Your task to perform on an android device: find which apps use the phone's location Image 0: 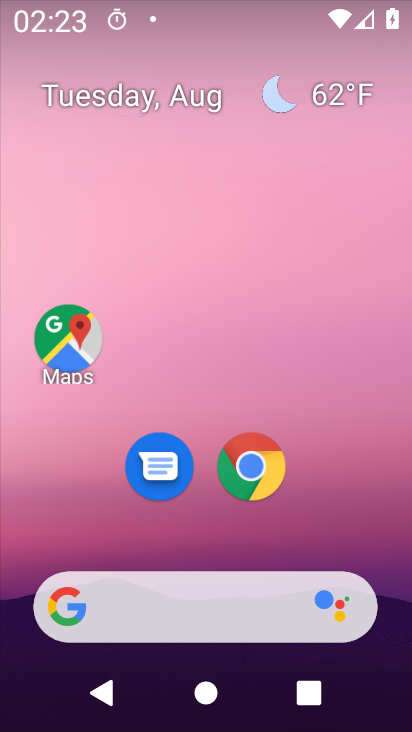
Step 0: press home button
Your task to perform on an android device: find which apps use the phone's location Image 1: 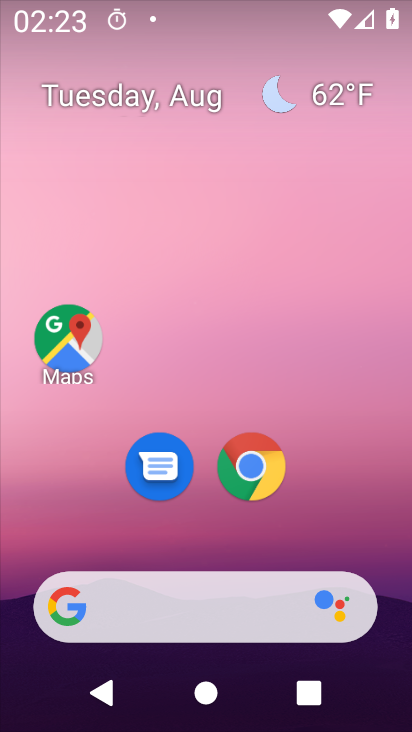
Step 1: drag from (368, 554) to (381, 133)
Your task to perform on an android device: find which apps use the phone's location Image 2: 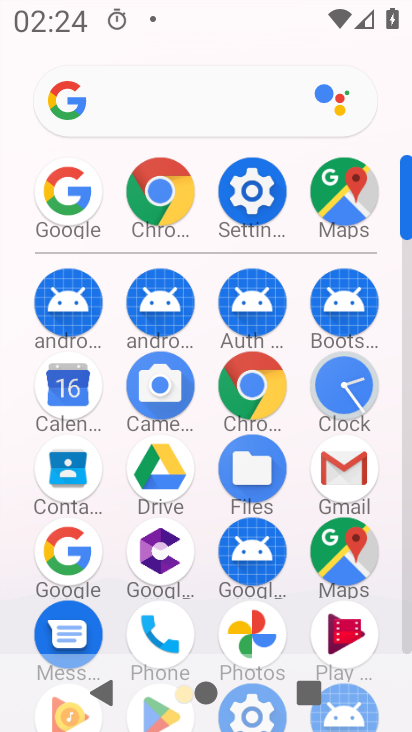
Step 2: click (263, 201)
Your task to perform on an android device: find which apps use the phone's location Image 3: 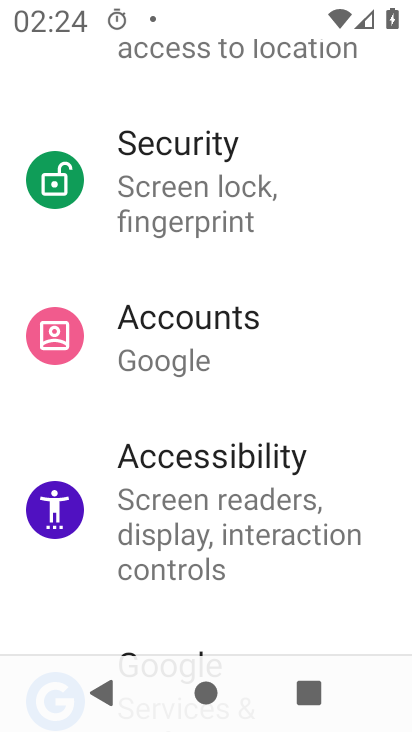
Step 3: drag from (322, 324) to (328, 444)
Your task to perform on an android device: find which apps use the phone's location Image 4: 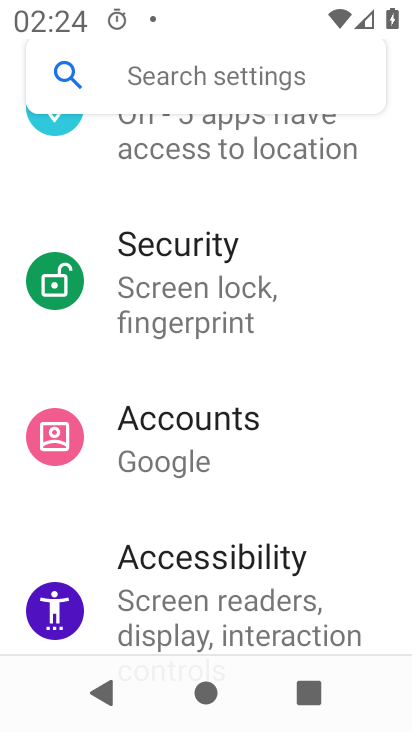
Step 4: drag from (359, 272) to (357, 401)
Your task to perform on an android device: find which apps use the phone's location Image 5: 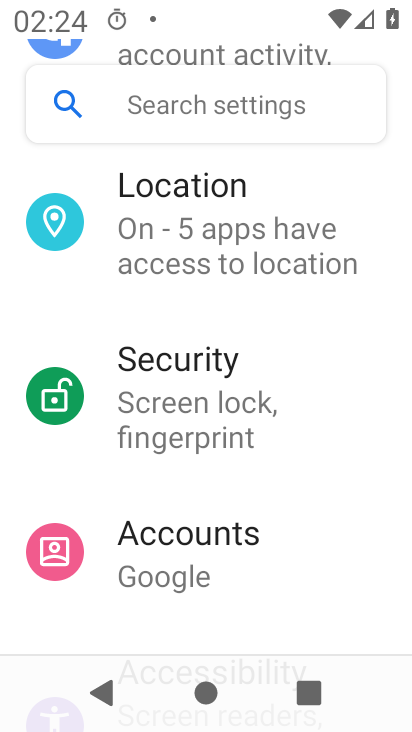
Step 5: drag from (381, 273) to (366, 392)
Your task to perform on an android device: find which apps use the phone's location Image 6: 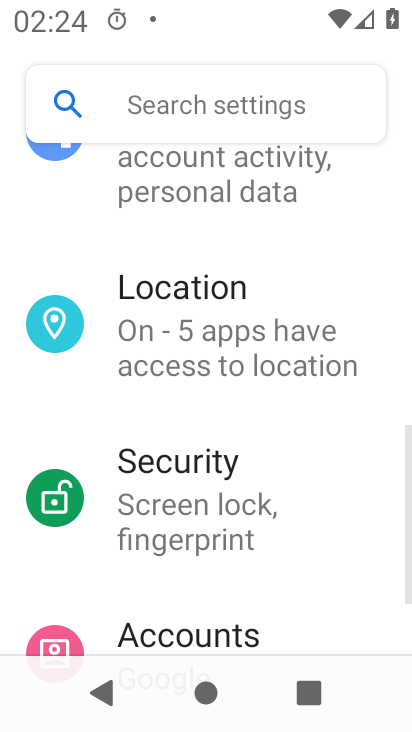
Step 6: drag from (381, 241) to (383, 364)
Your task to perform on an android device: find which apps use the phone's location Image 7: 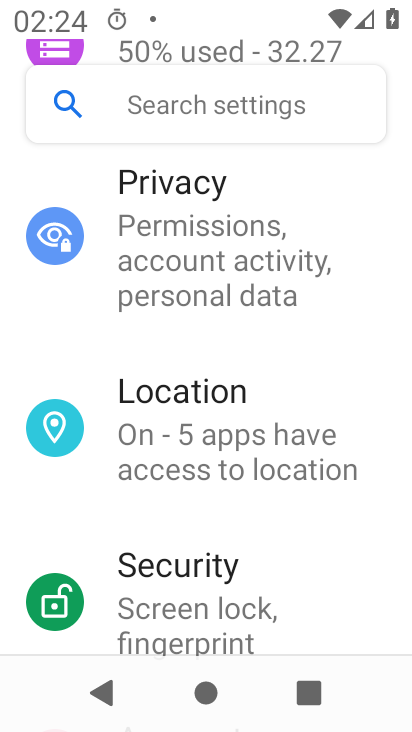
Step 7: drag from (369, 226) to (367, 338)
Your task to perform on an android device: find which apps use the phone's location Image 8: 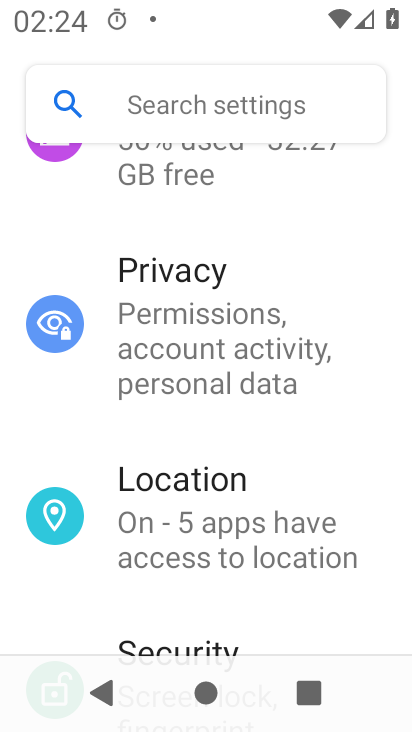
Step 8: click (302, 504)
Your task to perform on an android device: find which apps use the phone's location Image 9: 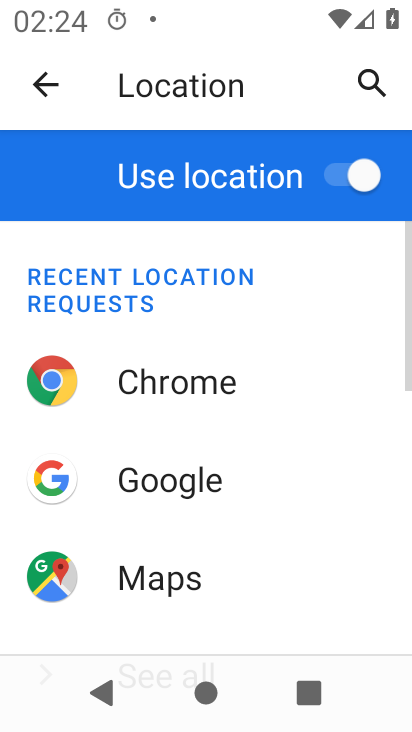
Step 9: drag from (315, 554) to (337, 401)
Your task to perform on an android device: find which apps use the phone's location Image 10: 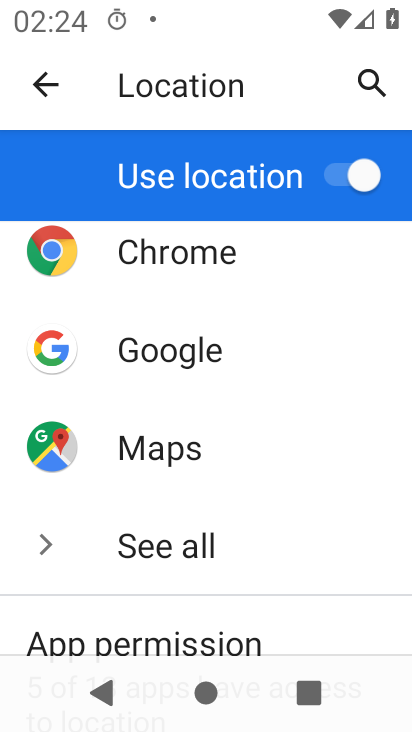
Step 10: drag from (324, 543) to (324, 386)
Your task to perform on an android device: find which apps use the phone's location Image 11: 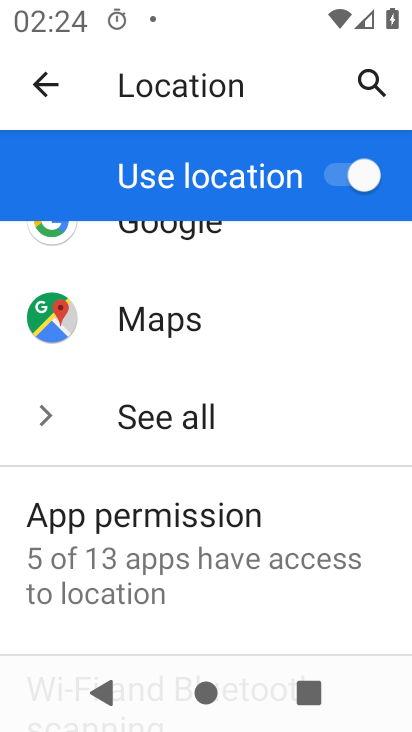
Step 11: drag from (309, 577) to (324, 385)
Your task to perform on an android device: find which apps use the phone's location Image 12: 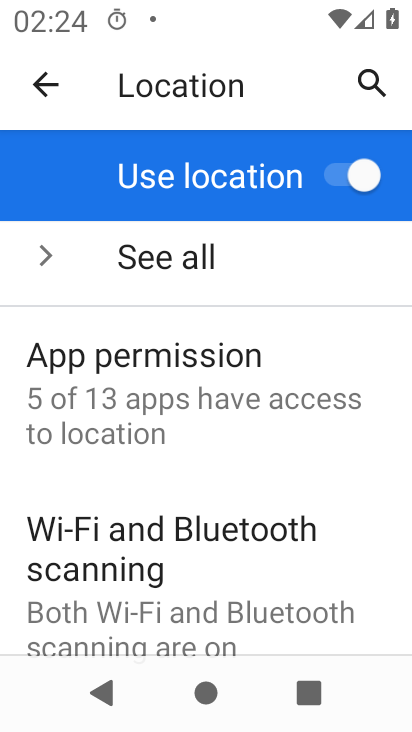
Step 12: drag from (313, 598) to (334, 407)
Your task to perform on an android device: find which apps use the phone's location Image 13: 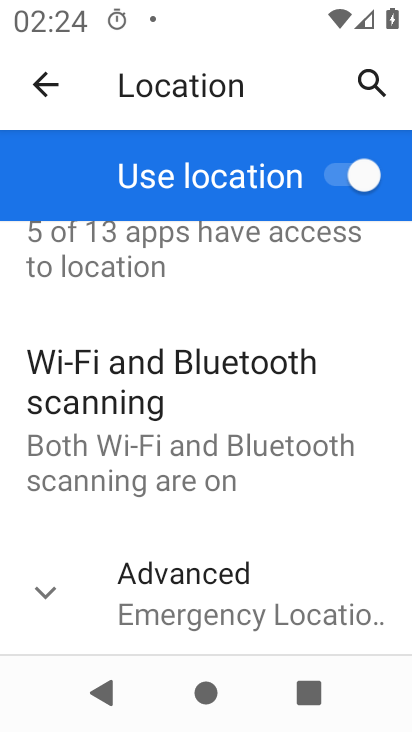
Step 13: drag from (310, 568) to (309, 427)
Your task to perform on an android device: find which apps use the phone's location Image 14: 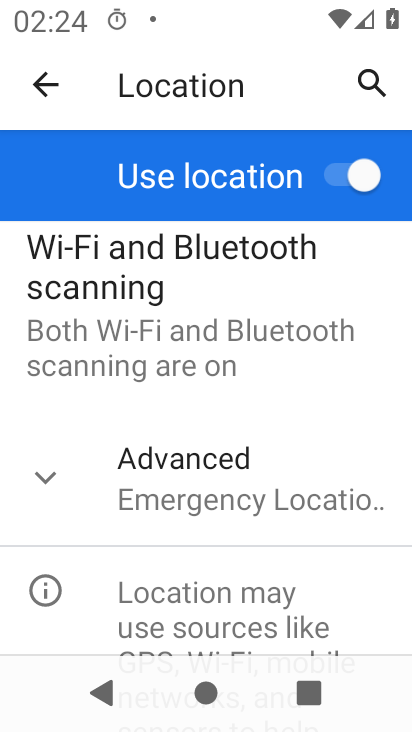
Step 14: drag from (324, 362) to (325, 542)
Your task to perform on an android device: find which apps use the phone's location Image 15: 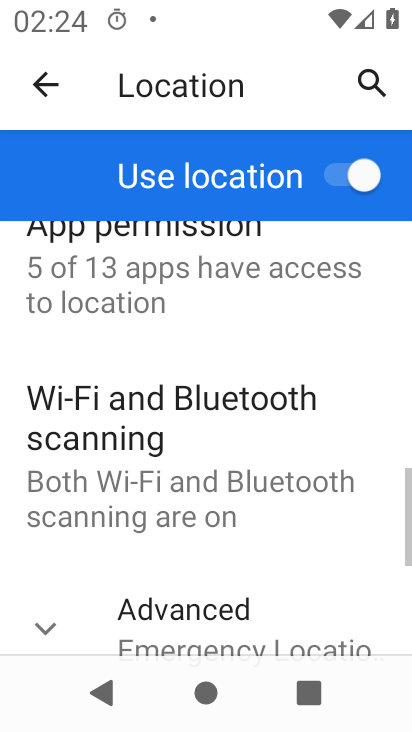
Step 15: drag from (375, 314) to (379, 482)
Your task to perform on an android device: find which apps use the phone's location Image 16: 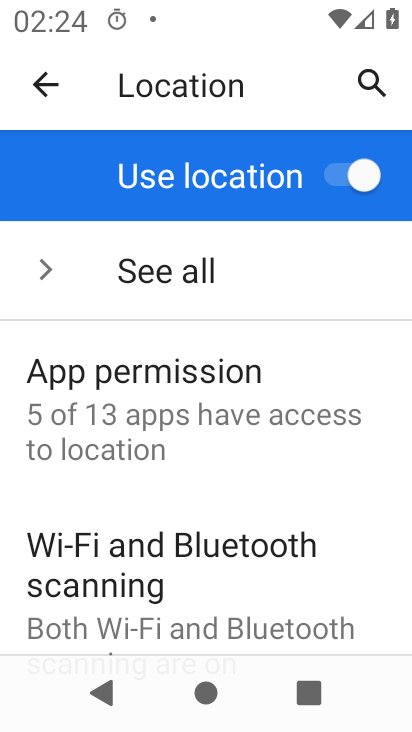
Step 16: click (278, 401)
Your task to perform on an android device: find which apps use the phone's location Image 17: 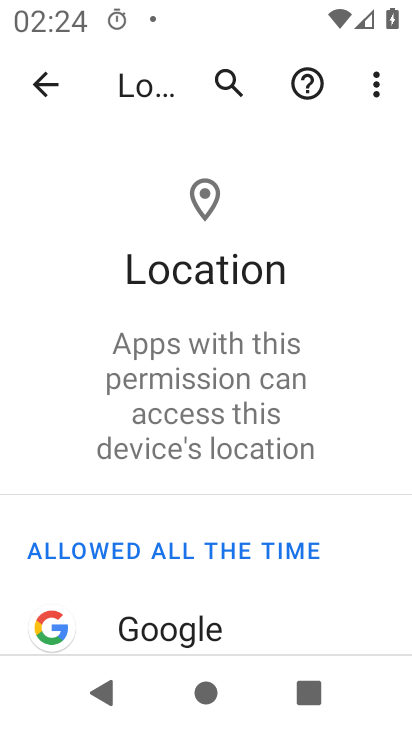
Step 17: drag from (263, 583) to (290, 298)
Your task to perform on an android device: find which apps use the phone's location Image 18: 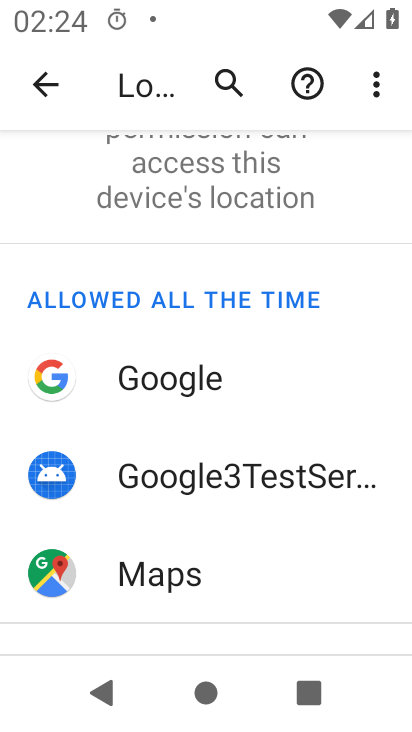
Step 18: drag from (264, 567) to (278, 338)
Your task to perform on an android device: find which apps use the phone's location Image 19: 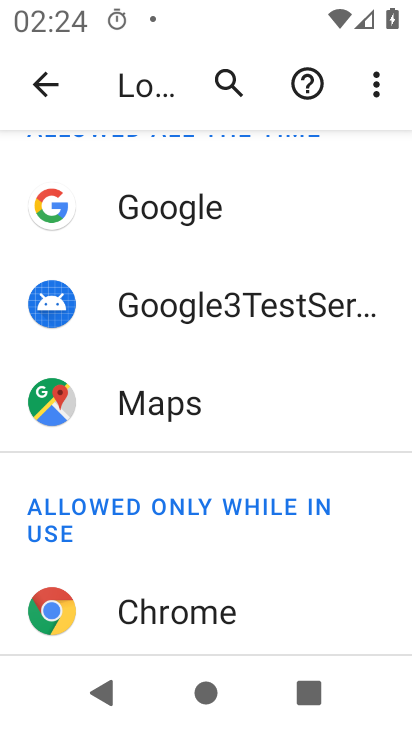
Step 19: drag from (282, 587) to (295, 393)
Your task to perform on an android device: find which apps use the phone's location Image 20: 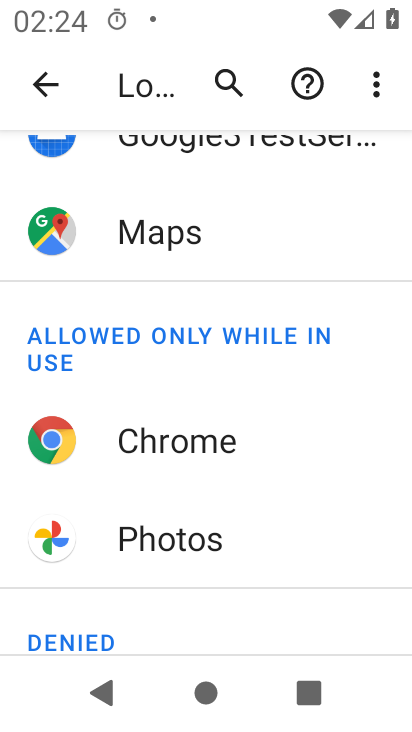
Step 20: click (261, 528)
Your task to perform on an android device: find which apps use the phone's location Image 21: 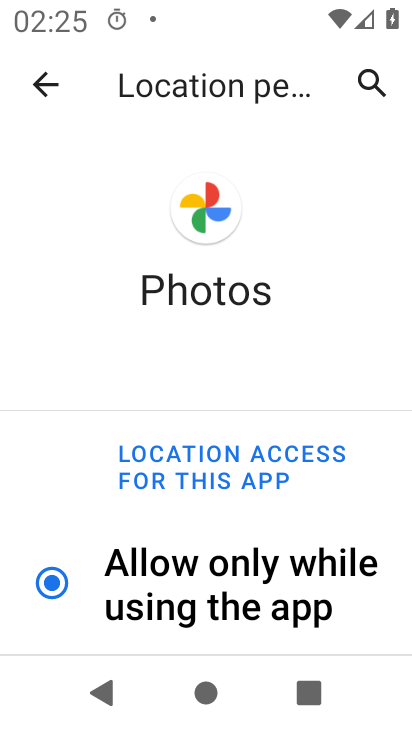
Step 21: task complete